Your task to perform on an android device: check out phone information Image 0: 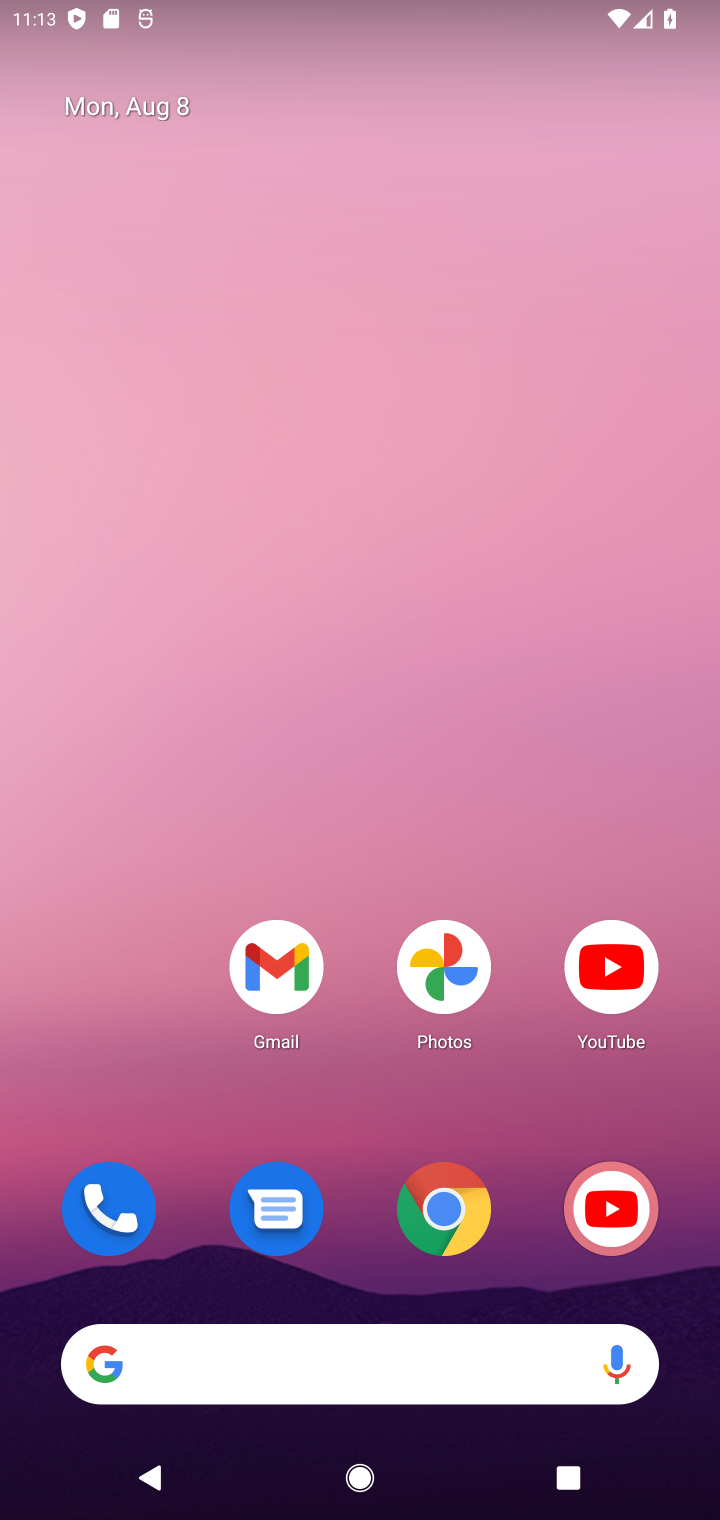
Step 0: click (105, 1200)
Your task to perform on an android device: check out phone information Image 1: 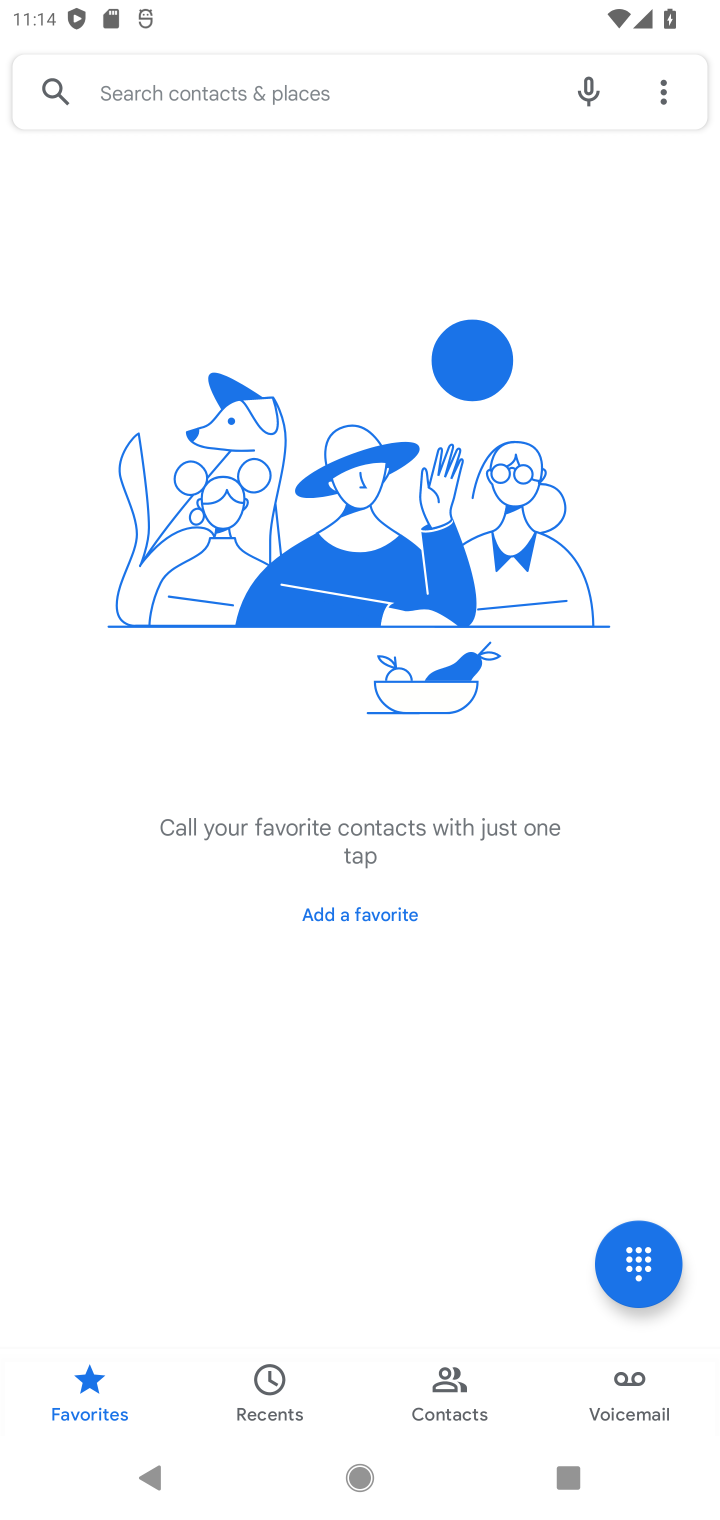
Step 1: click (277, 1393)
Your task to perform on an android device: check out phone information Image 2: 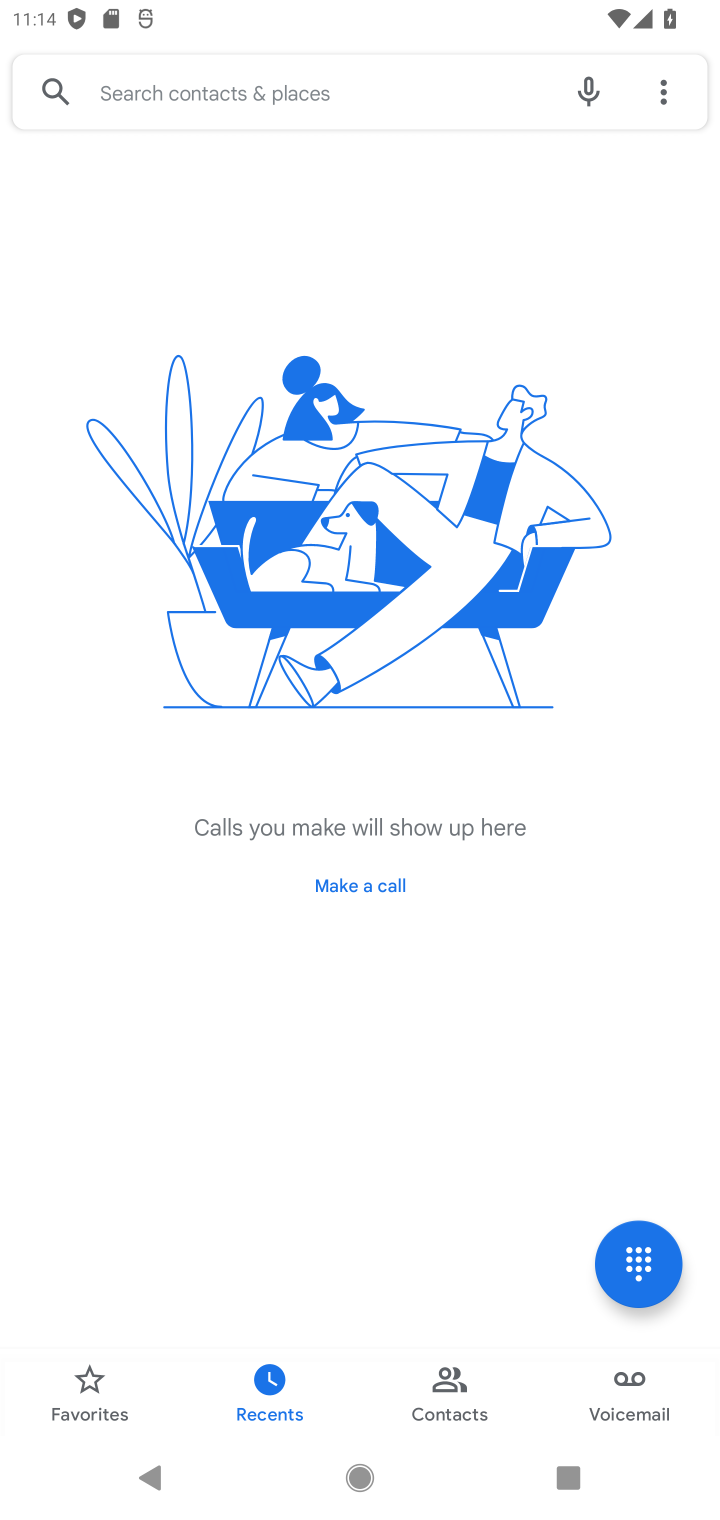
Step 2: task complete